Your task to perform on an android device: change text size in settings app Image 0: 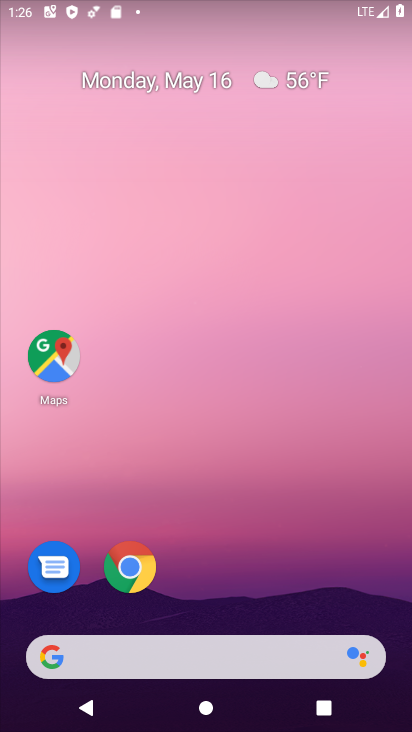
Step 0: drag from (188, 574) to (223, 67)
Your task to perform on an android device: change text size in settings app Image 1: 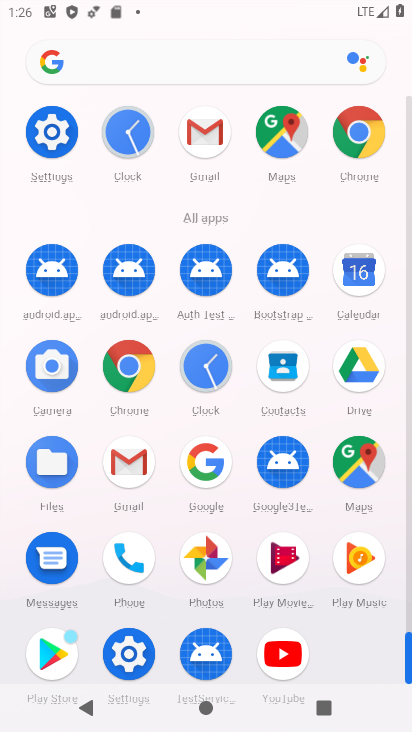
Step 1: drag from (203, 535) to (236, 378)
Your task to perform on an android device: change text size in settings app Image 2: 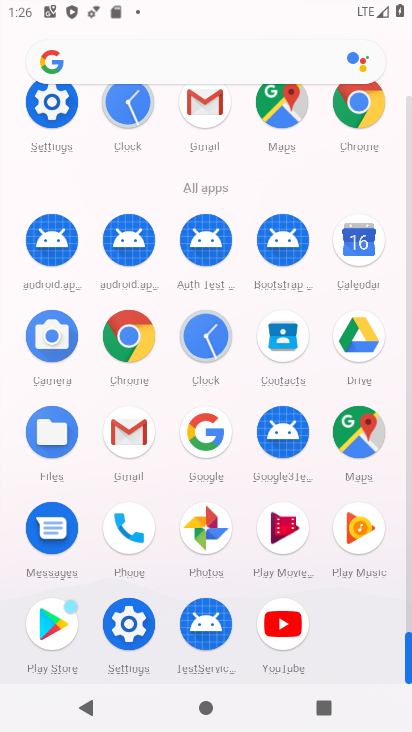
Step 2: click (126, 614)
Your task to perform on an android device: change text size in settings app Image 3: 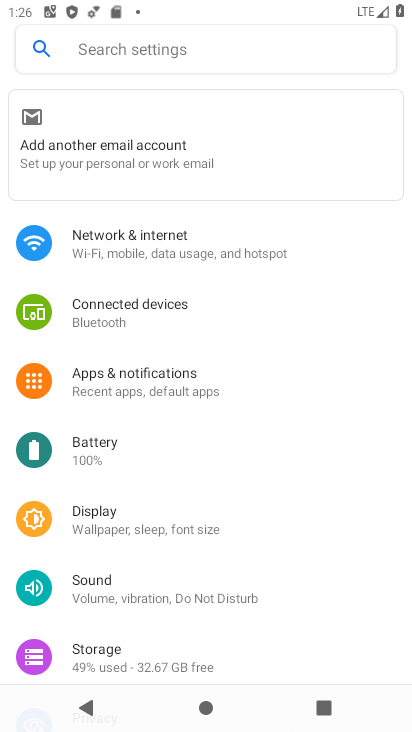
Step 3: click (165, 538)
Your task to perform on an android device: change text size in settings app Image 4: 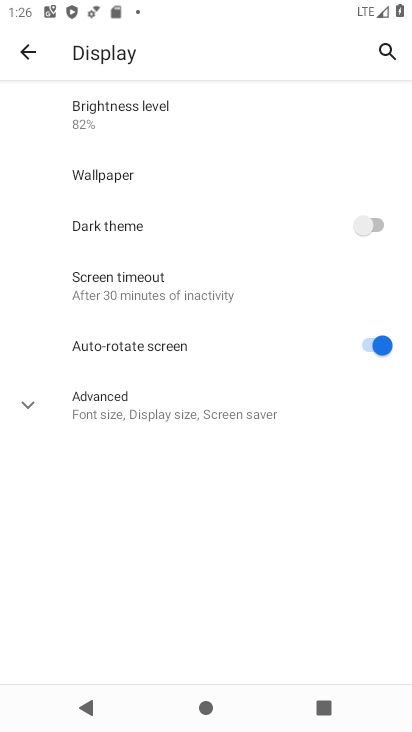
Step 4: click (180, 405)
Your task to perform on an android device: change text size in settings app Image 5: 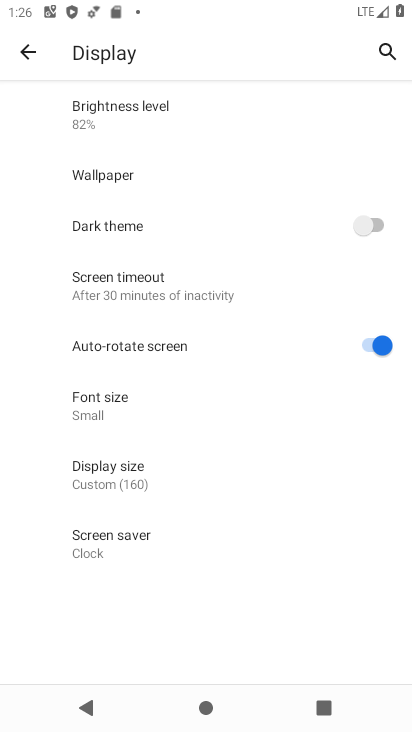
Step 5: click (170, 412)
Your task to perform on an android device: change text size in settings app Image 6: 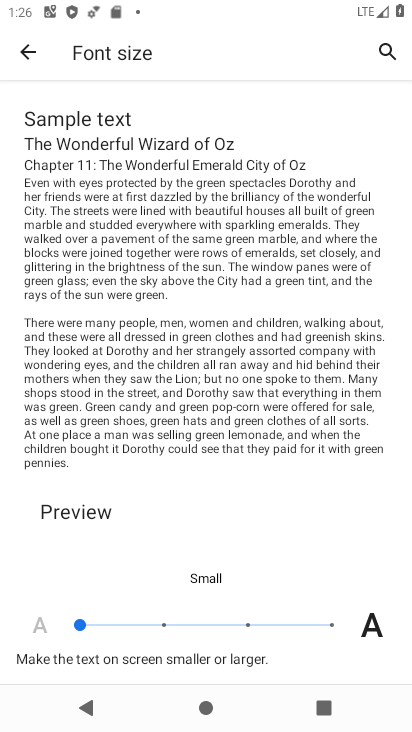
Step 6: click (164, 621)
Your task to perform on an android device: change text size in settings app Image 7: 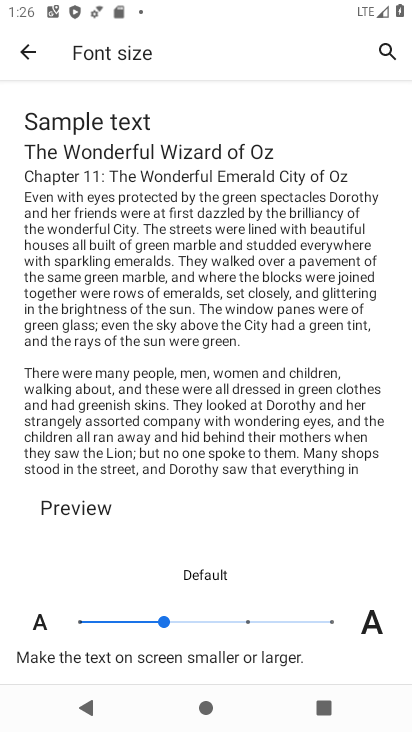
Step 7: task complete